Your task to perform on an android device: Open settings Image 0: 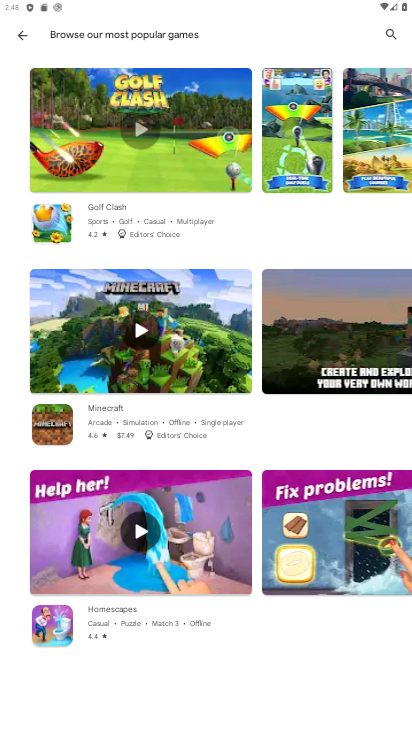
Step 0: press home button
Your task to perform on an android device: Open settings Image 1: 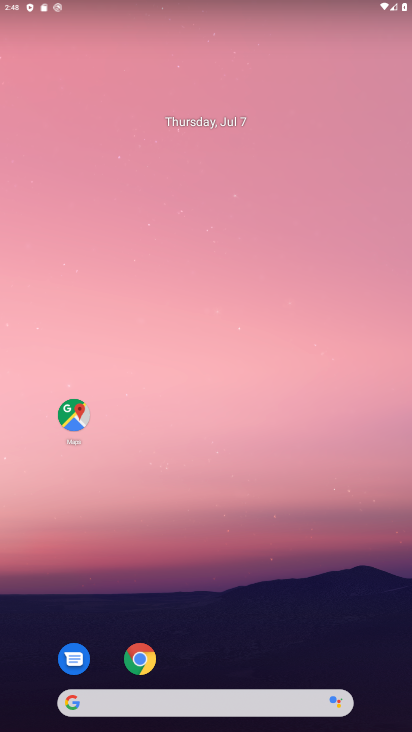
Step 1: drag from (309, 629) to (105, 45)
Your task to perform on an android device: Open settings Image 2: 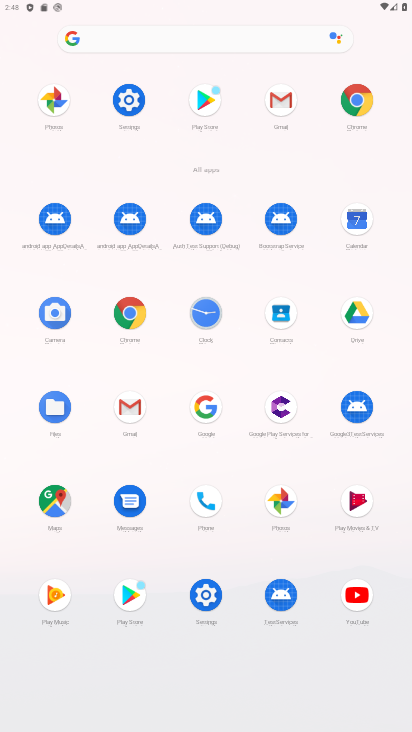
Step 2: click (130, 98)
Your task to perform on an android device: Open settings Image 3: 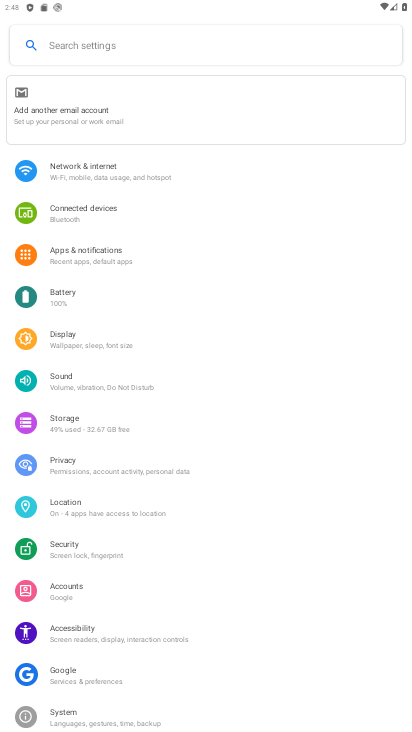
Step 3: task complete